Your task to perform on an android device: turn notification dots on Image 0: 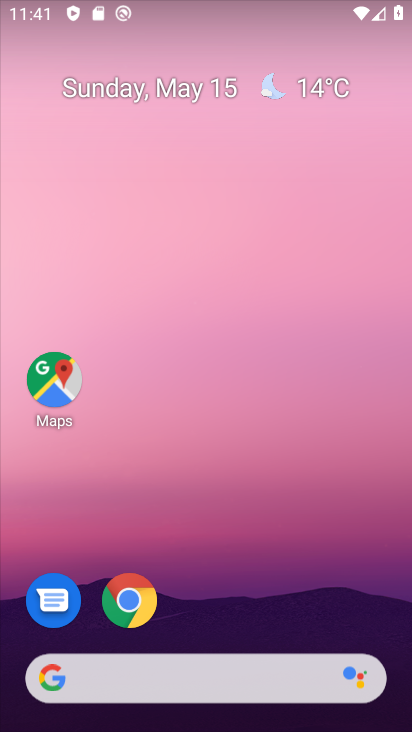
Step 0: drag from (287, 576) to (257, 22)
Your task to perform on an android device: turn notification dots on Image 1: 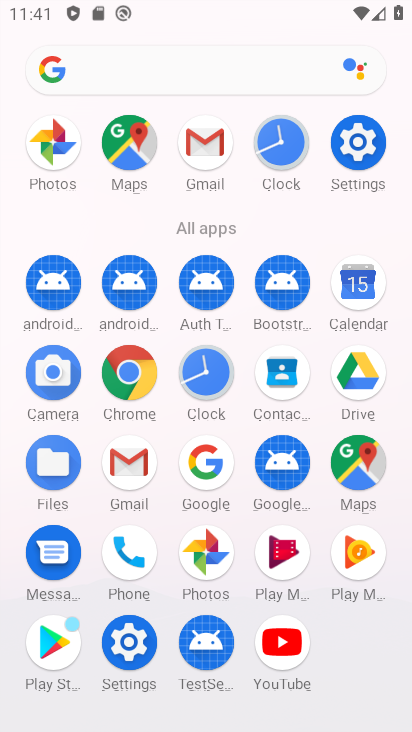
Step 1: click (128, 641)
Your task to perform on an android device: turn notification dots on Image 2: 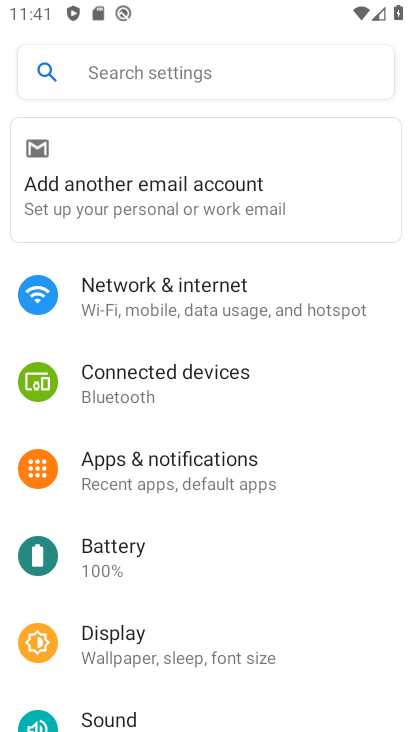
Step 2: click (232, 469)
Your task to perform on an android device: turn notification dots on Image 3: 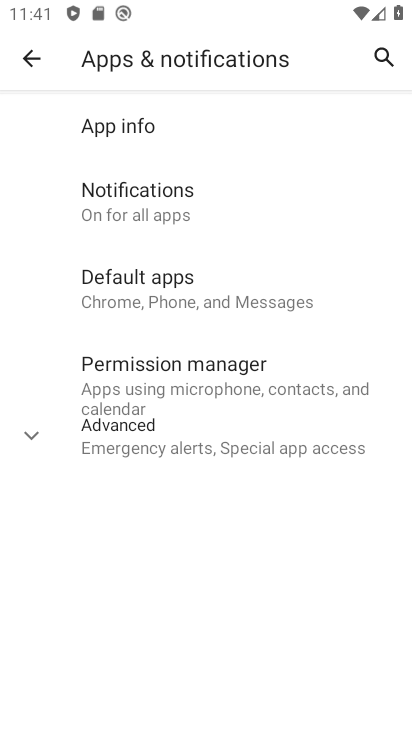
Step 3: click (185, 391)
Your task to perform on an android device: turn notification dots on Image 4: 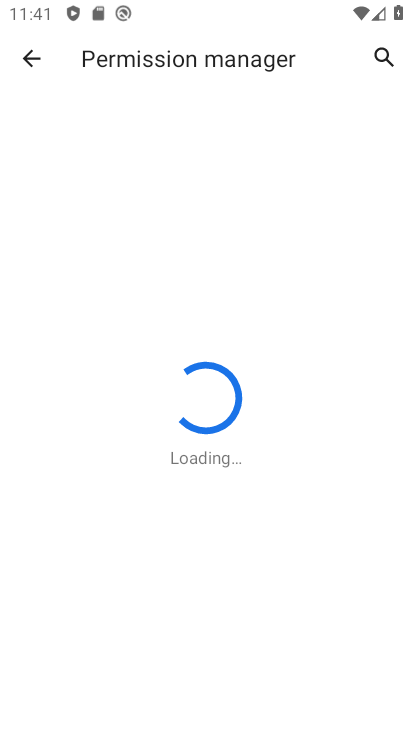
Step 4: click (46, 60)
Your task to perform on an android device: turn notification dots on Image 5: 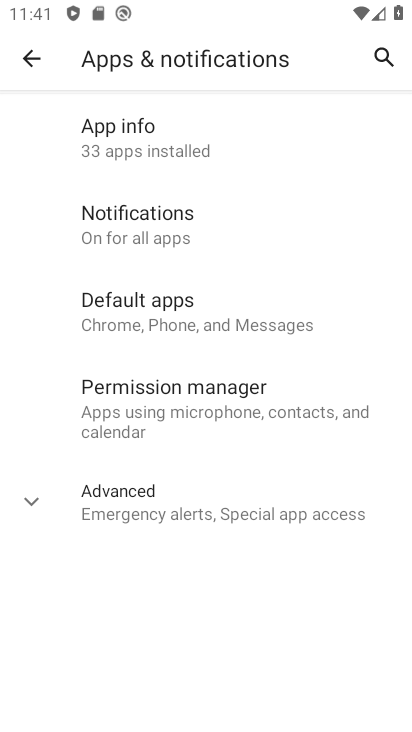
Step 5: click (41, 59)
Your task to perform on an android device: turn notification dots on Image 6: 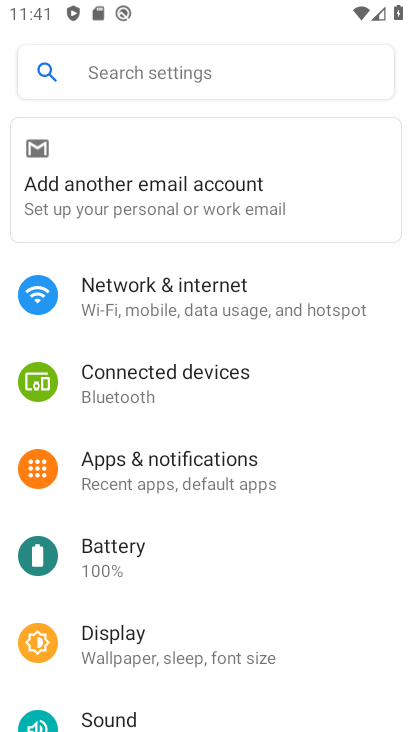
Step 6: click (172, 452)
Your task to perform on an android device: turn notification dots on Image 7: 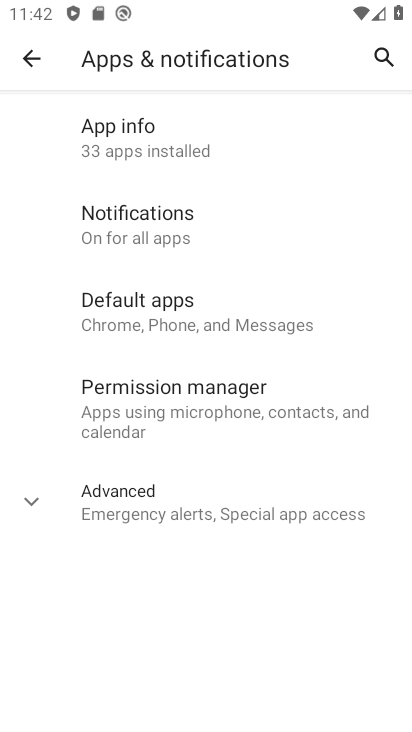
Step 7: click (179, 222)
Your task to perform on an android device: turn notification dots on Image 8: 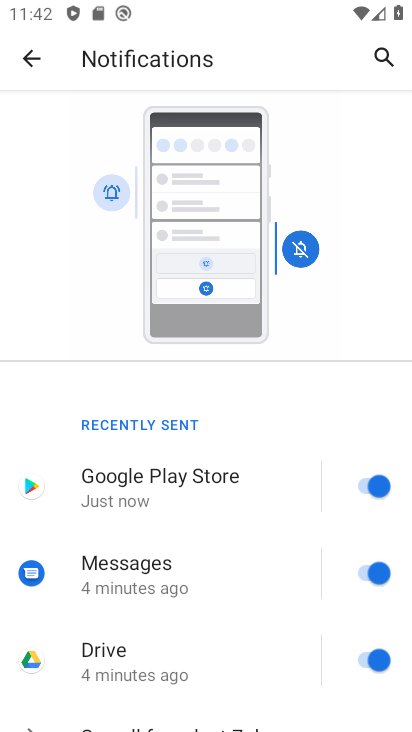
Step 8: drag from (223, 545) to (247, 131)
Your task to perform on an android device: turn notification dots on Image 9: 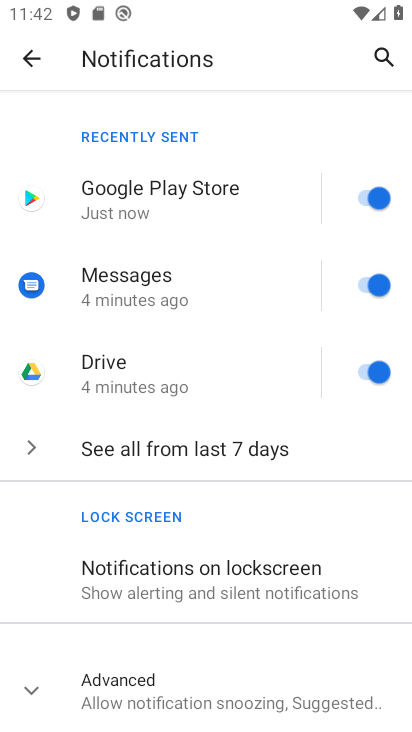
Step 9: click (77, 698)
Your task to perform on an android device: turn notification dots on Image 10: 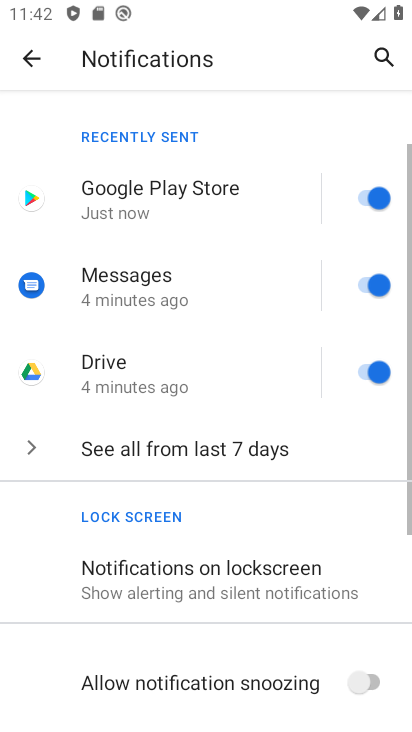
Step 10: task complete